Your task to perform on an android device: Turn on the flashlight Image 0: 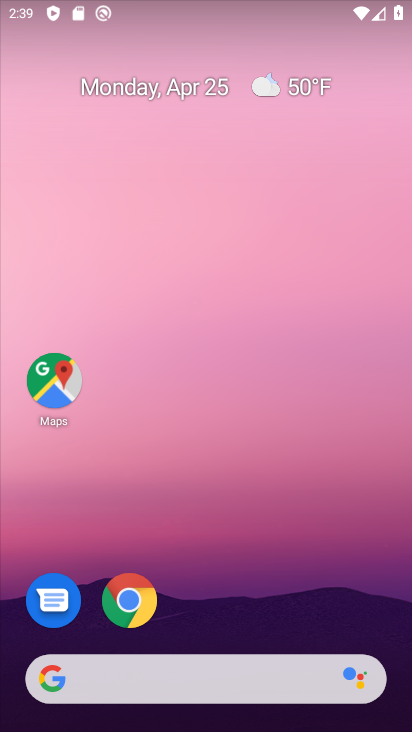
Step 0: drag from (371, 592) to (308, 219)
Your task to perform on an android device: Turn on the flashlight Image 1: 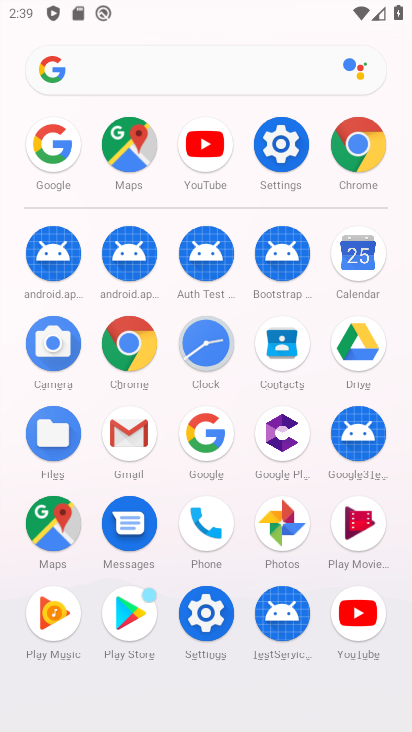
Step 1: click (280, 138)
Your task to perform on an android device: Turn on the flashlight Image 2: 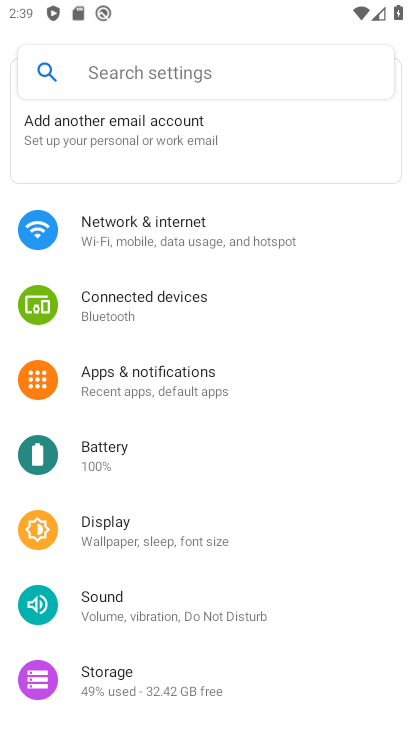
Step 2: click (181, 75)
Your task to perform on an android device: Turn on the flashlight Image 3: 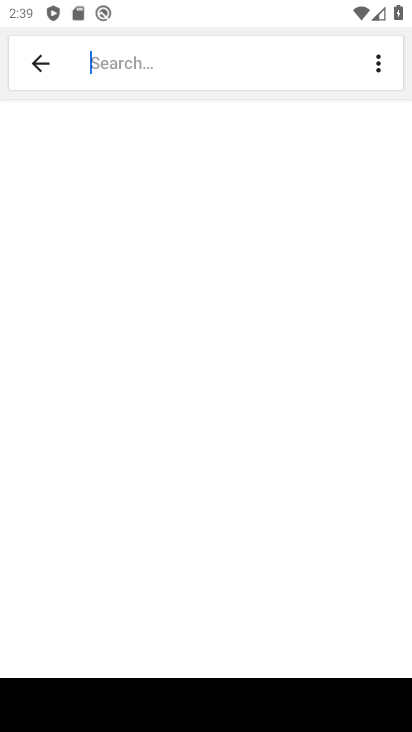
Step 3: type "flashlight"
Your task to perform on an android device: Turn on the flashlight Image 4: 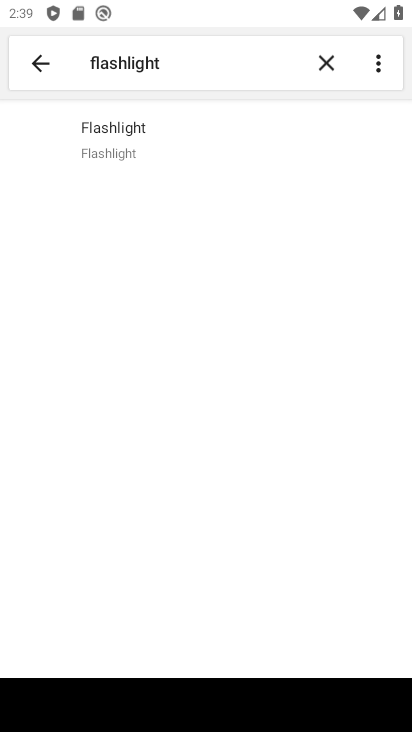
Step 4: task complete